Your task to perform on an android device: Is it going to rain this weekend? Image 0: 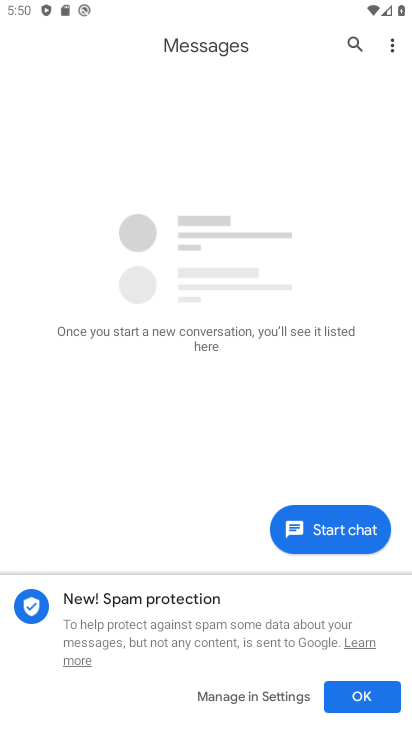
Step 0: press home button
Your task to perform on an android device: Is it going to rain this weekend? Image 1: 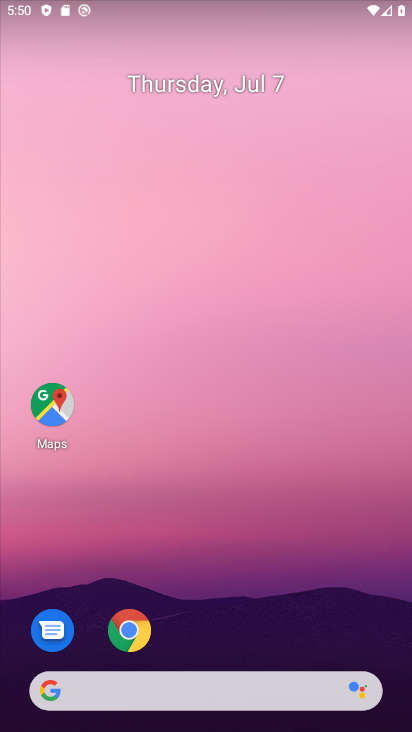
Step 1: drag from (205, 504) to (226, 163)
Your task to perform on an android device: Is it going to rain this weekend? Image 2: 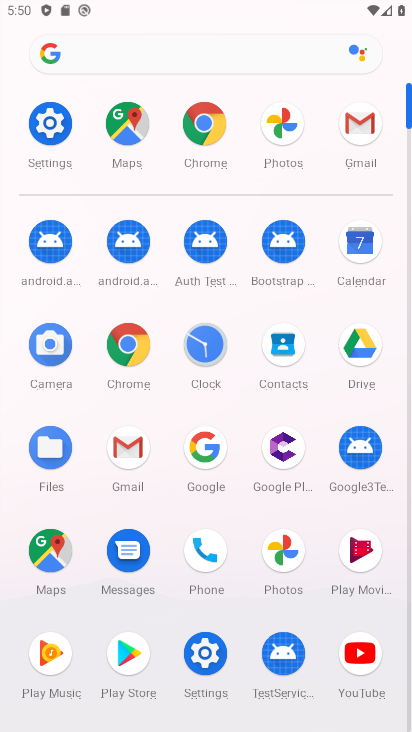
Step 2: click (205, 465)
Your task to perform on an android device: Is it going to rain this weekend? Image 3: 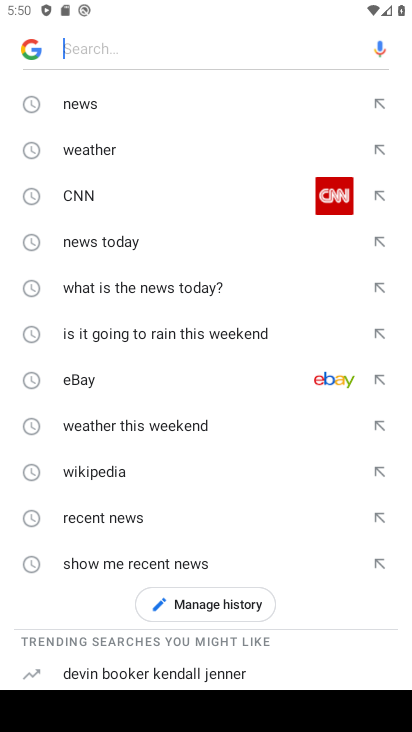
Step 3: click (96, 153)
Your task to perform on an android device: Is it going to rain this weekend? Image 4: 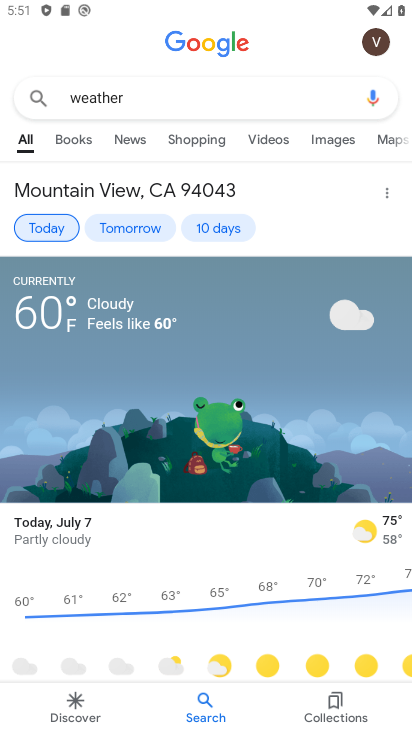
Step 4: click (222, 230)
Your task to perform on an android device: Is it going to rain this weekend? Image 5: 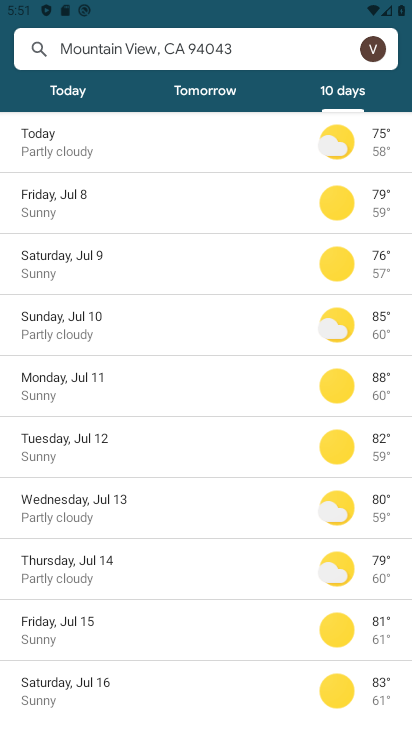
Step 5: drag from (165, 413) to (225, 9)
Your task to perform on an android device: Is it going to rain this weekend? Image 6: 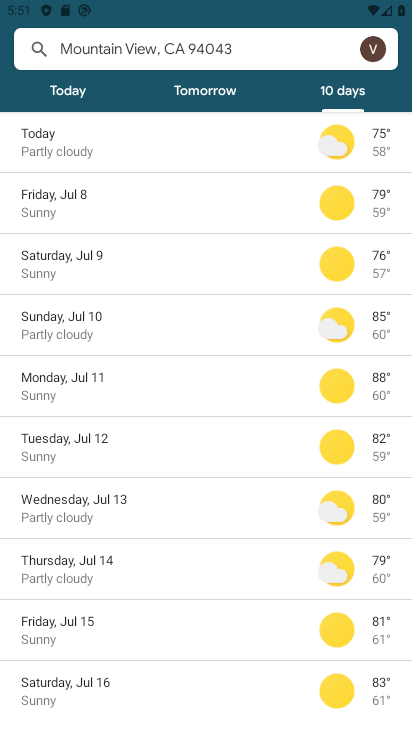
Step 6: click (380, 390)
Your task to perform on an android device: Is it going to rain this weekend? Image 7: 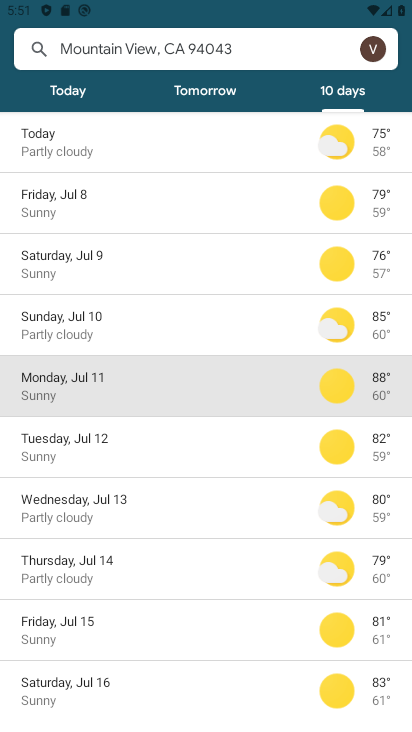
Step 7: task complete